Your task to perform on an android device: Search for Italian restaurants on Maps Image 0: 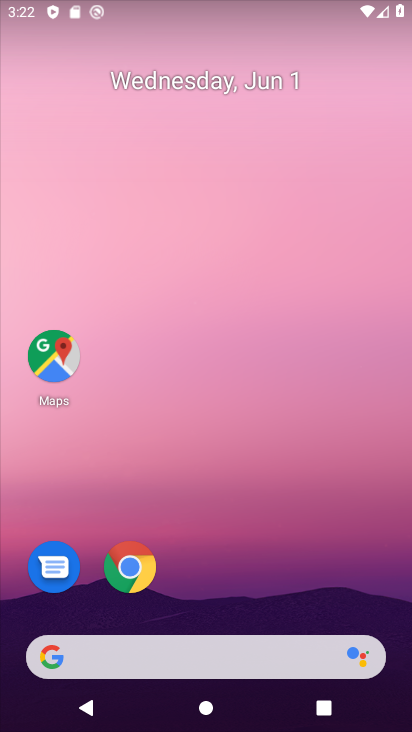
Step 0: click (49, 346)
Your task to perform on an android device: Search for Italian restaurants on Maps Image 1: 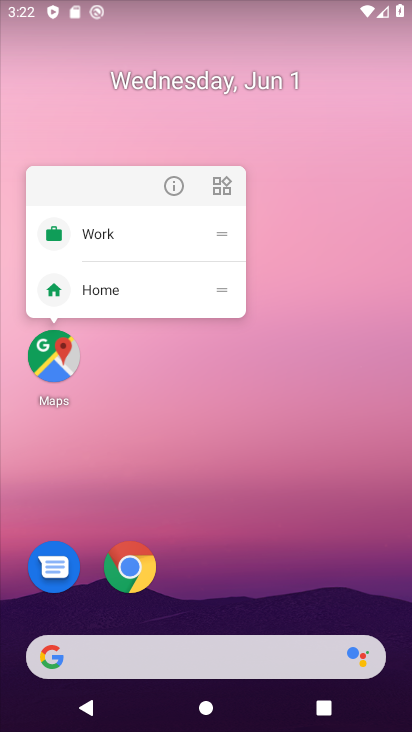
Step 1: click (41, 376)
Your task to perform on an android device: Search for Italian restaurants on Maps Image 2: 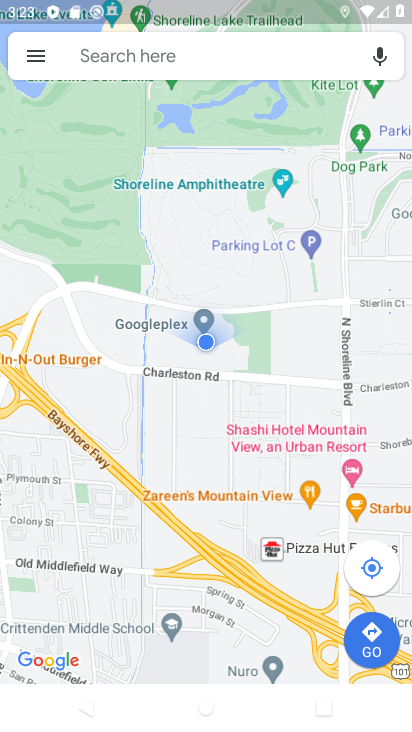
Step 2: click (173, 68)
Your task to perform on an android device: Search for Italian restaurants on Maps Image 3: 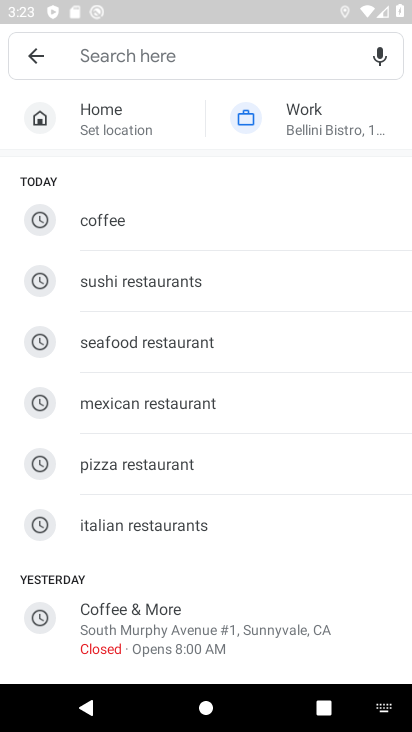
Step 3: click (139, 521)
Your task to perform on an android device: Search for Italian restaurants on Maps Image 4: 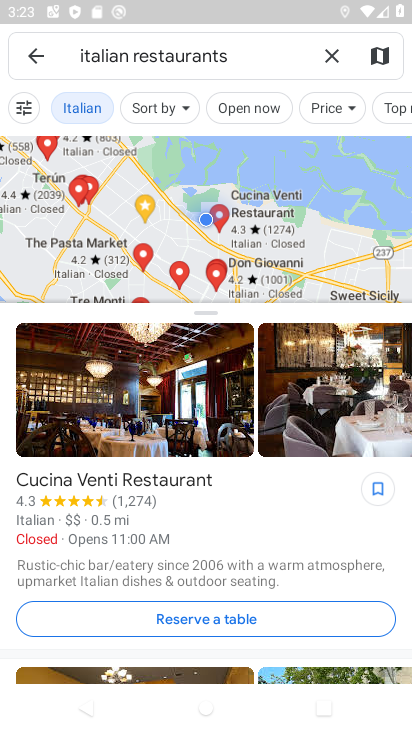
Step 4: task complete